Your task to perform on an android device: change notifications settings Image 0: 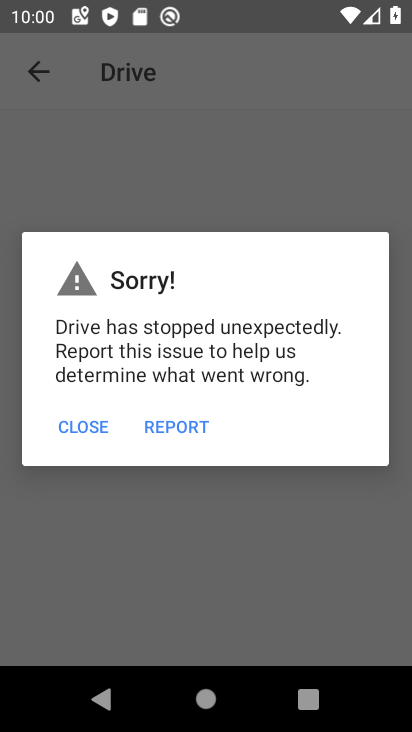
Step 0: press home button
Your task to perform on an android device: change notifications settings Image 1: 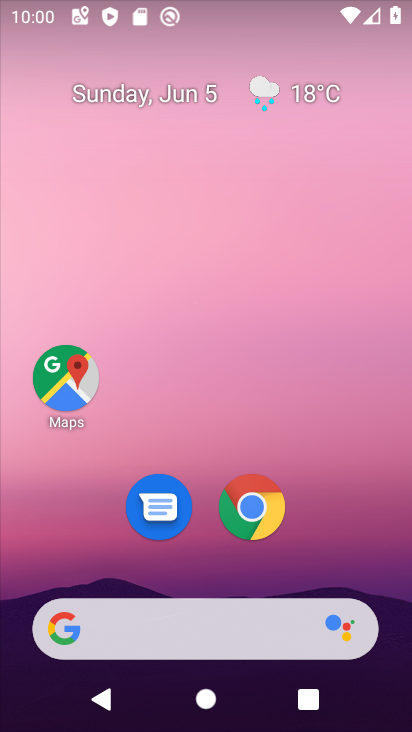
Step 1: drag from (224, 586) to (295, 19)
Your task to perform on an android device: change notifications settings Image 2: 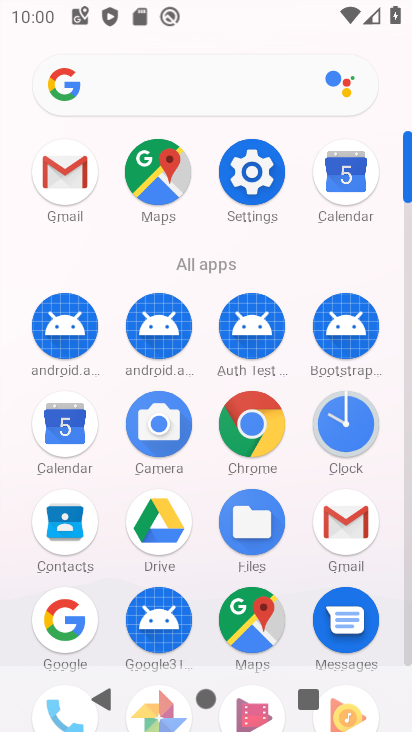
Step 2: click (249, 202)
Your task to perform on an android device: change notifications settings Image 3: 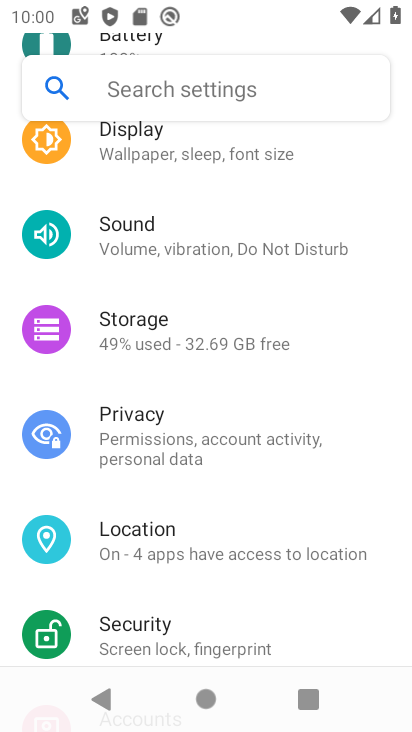
Step 3: drag from (206, 260) to (186, 703)
Your task to perform on an android device: change notifications settings Image 4: 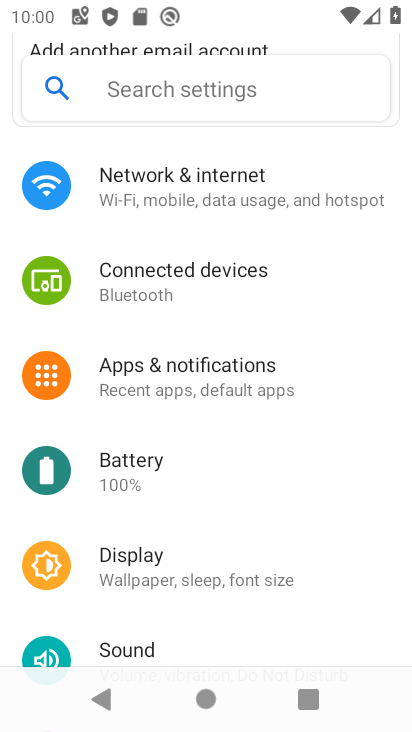
Step 4: click (199, 385)
Your task to perform on an android device: change notifications settings Image 5: 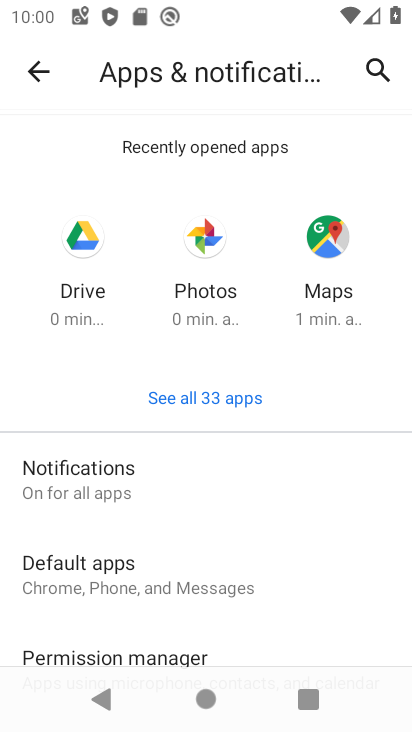
Step 5: click (126, 489)
Your task to perform on an android device: change notifications settings Image 6: 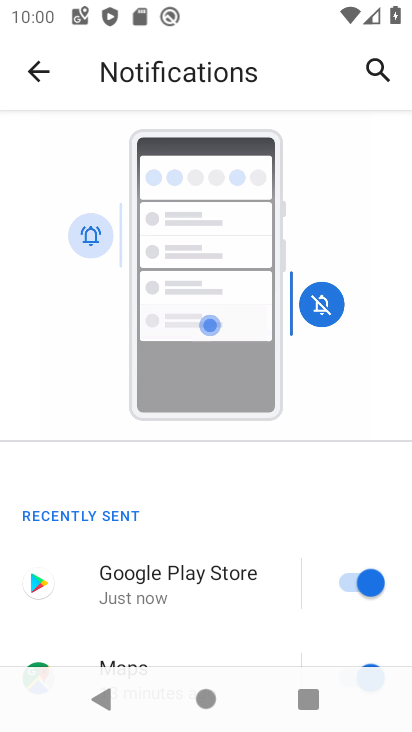
Step 6: drag from (220, 561) to (269, 198)
Your task to perform on an android device: change notifications settings Image 7: 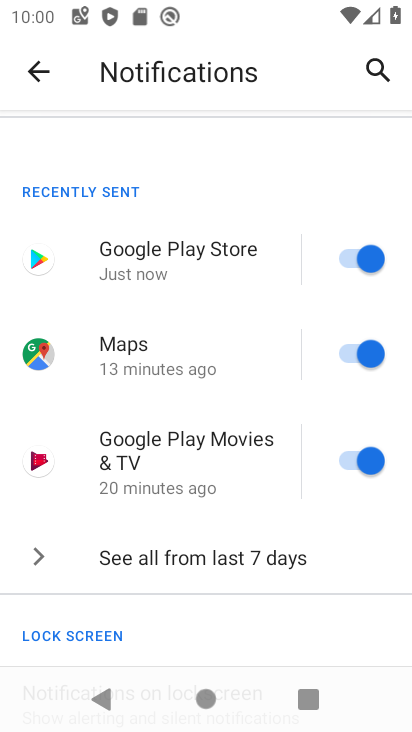
Step 7: click (183, 566)
Your task to perform on an android device: change notifications settings Image 8: 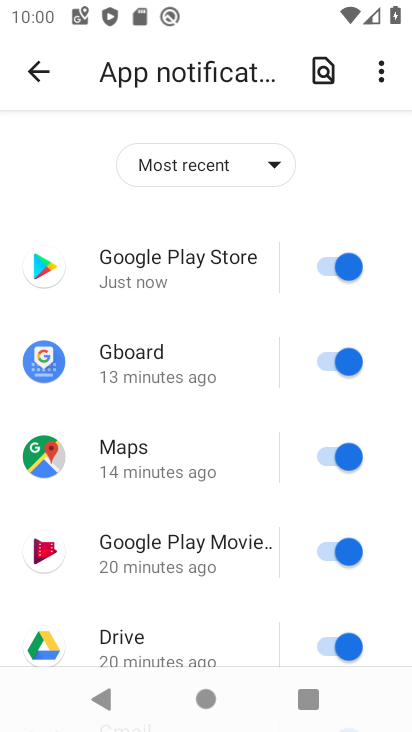
Step 8: click (321, 254)
Your task to perform on an android device: change notifications settings Image 9: 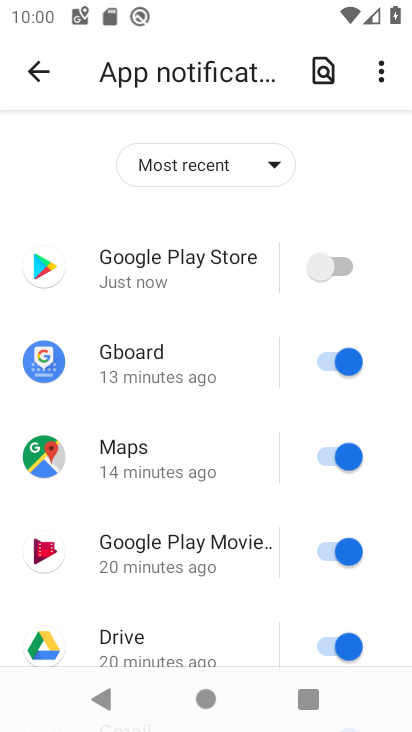
Step 9: click (322, 367)
Your task to perform on an android device: change notifications settings Image 10: 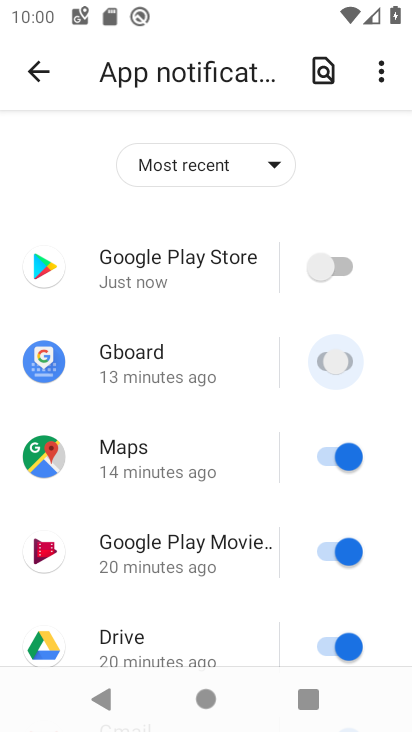
Step 10: click (325, 451)
Your task to perform on an android device: change notifications settings Image 11: 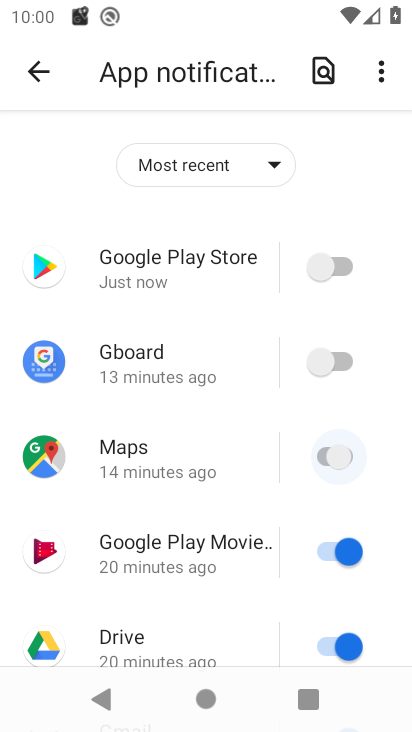
Step 11: click (330, 539)
Your task to perform on an android device: change notifications settings Image 12: 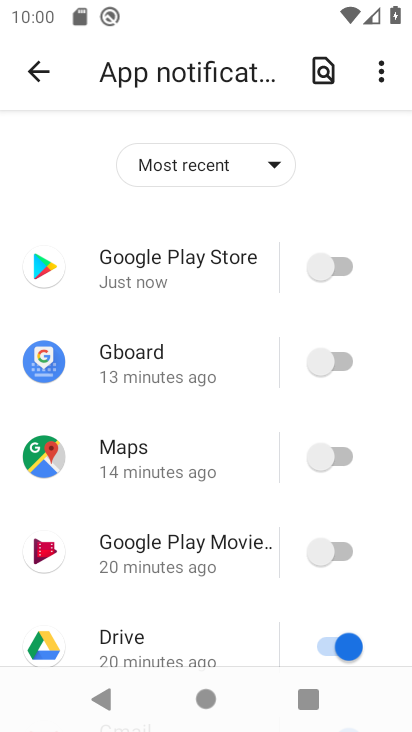
Step 12: click (323, 638)
Your task to perform on an android device: change notifications settings Image 13: 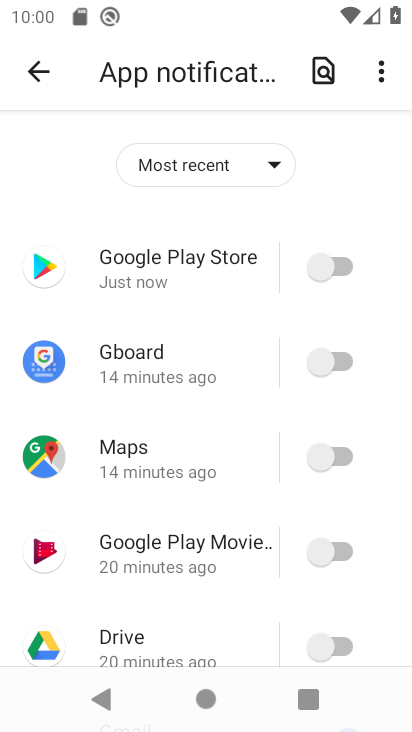
Step 13: drag from (200, 586) to (291, 124)
Your task to perform on an android device: change notifications settings Image 14: 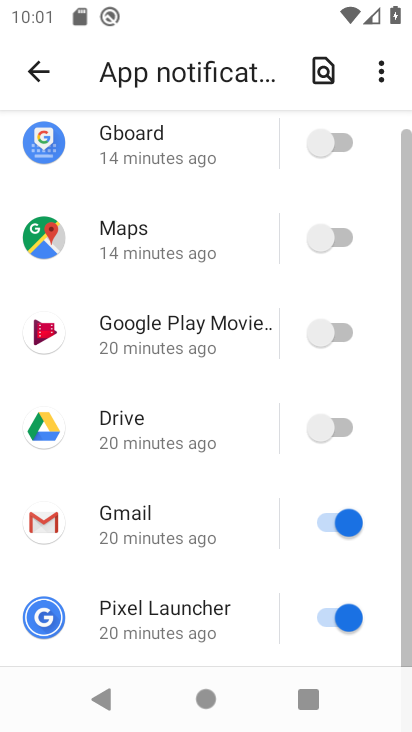
Step 14: click (331, 521)
Your task to perform on an android device: change notifications settings Image 15: 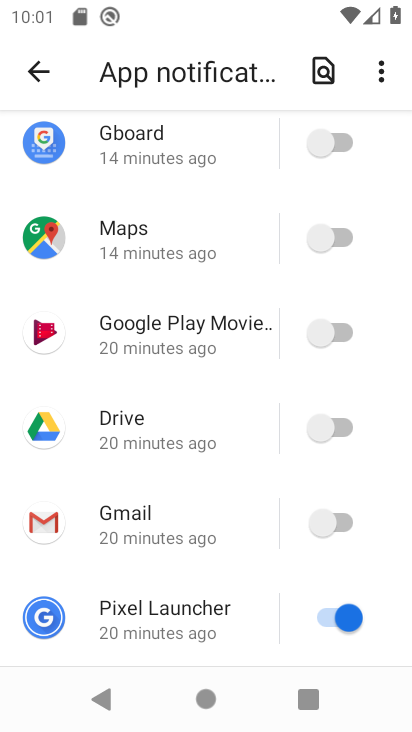
Step 15: click (325, 613)
Your task to perform on an android device: change notifications settings Image 16: 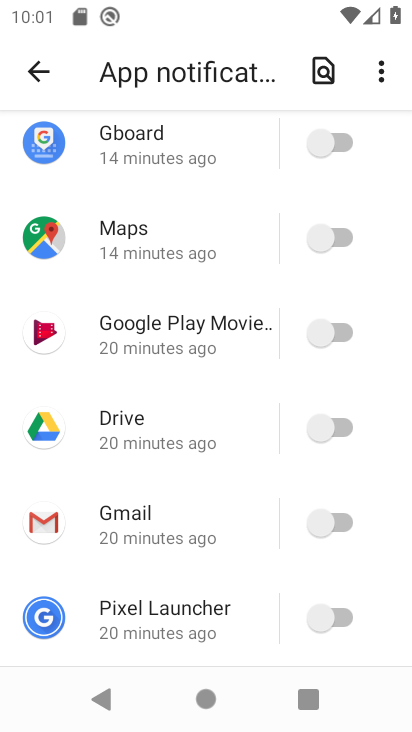
Step 16: drag from (204, 579) to (213, 324)
Your task to perform on an android device: change notifications settings Image 17: 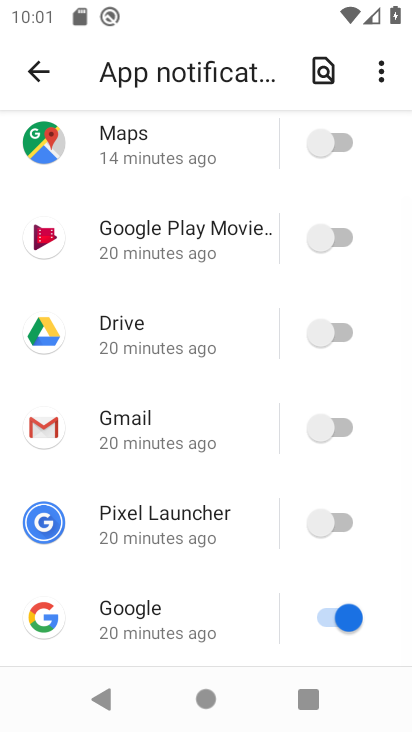
Step 17: click (317, 623)
Your task to perform on an android device: change notifications settings Image 18: 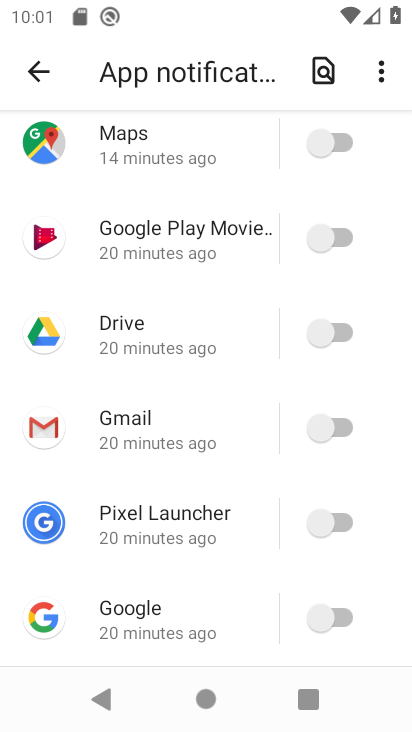
Step 18: task complete